Your task to perform on an android device: toggle notification dots Image 0: 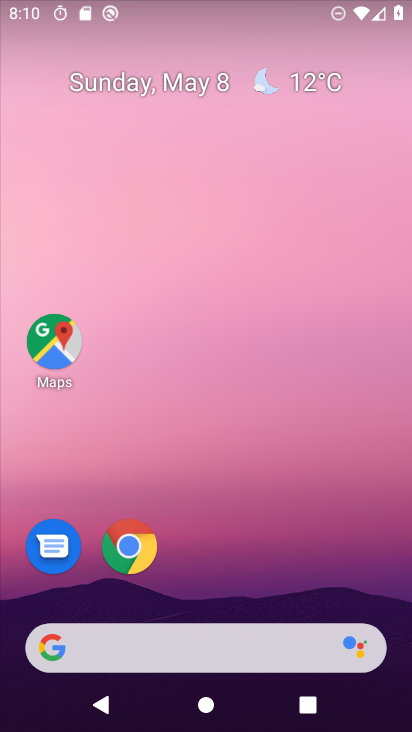
Step 0: drag from (222, 514) to (222, 44)
Your task to perform on an android device: toggle notification dots Image 1: 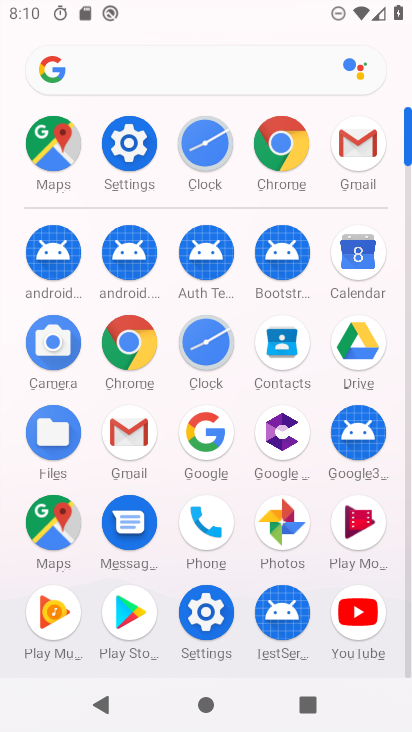
Step 1: click (140, 141)
Your task to perform on an android device: toggle notification dots Image 2: 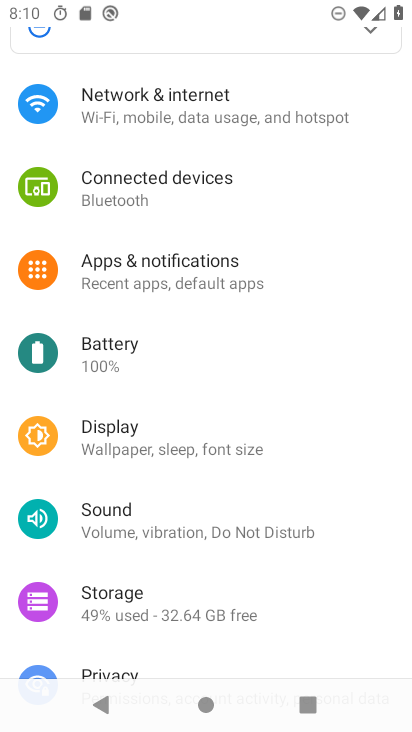
Step 2: click (160, 257)
Your task to perform on an android device: toggle notification dots Image 3: 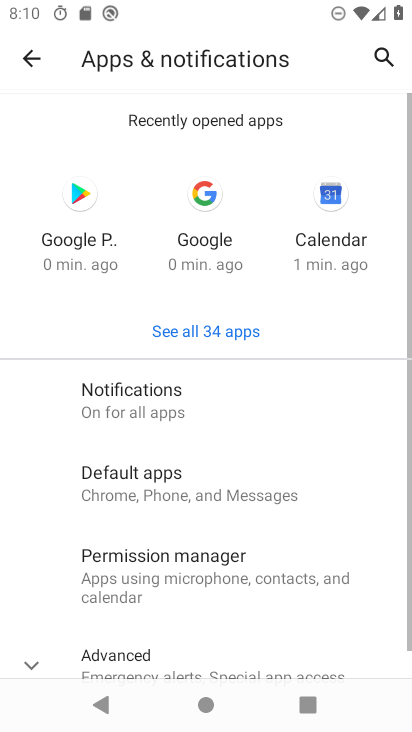
Step 3: click (148, 389)
Your task to perform on an android device: toggle notification dots Image 4: 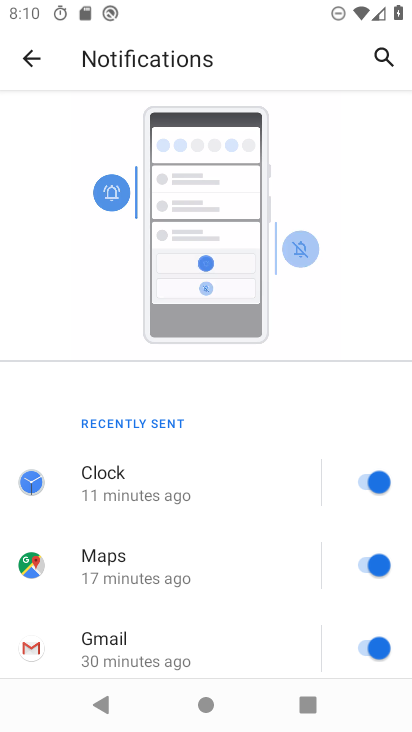
Step 4: drag from (148, 389) to (177, 139)
Your task to perform on an android device: toggle notification dots Image 5: 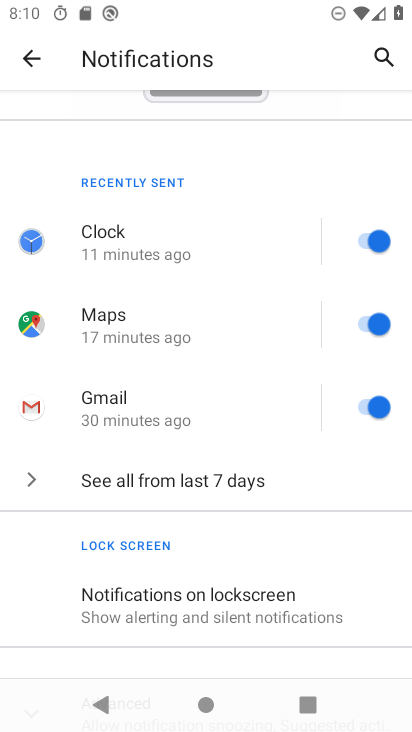
Step 5: click (152, 516)
Your task to perform on an android device: toggle notification dots Image 6: 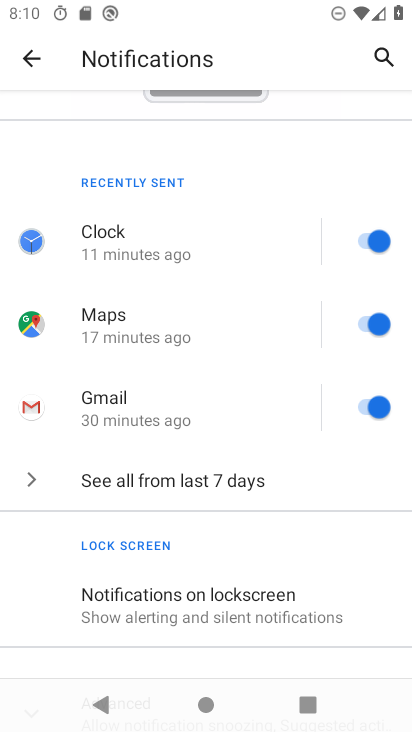
Step 6: drag from (152, 516) to (162, 235)
Your task to perform on an android device: toggle notification dots Image 7: 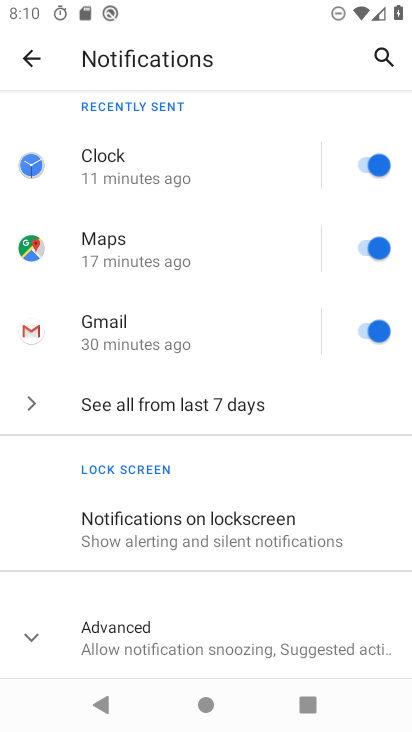
Step 7: click (32, 635)
Your task to perform on an android device: toggle notification dots Image 8: 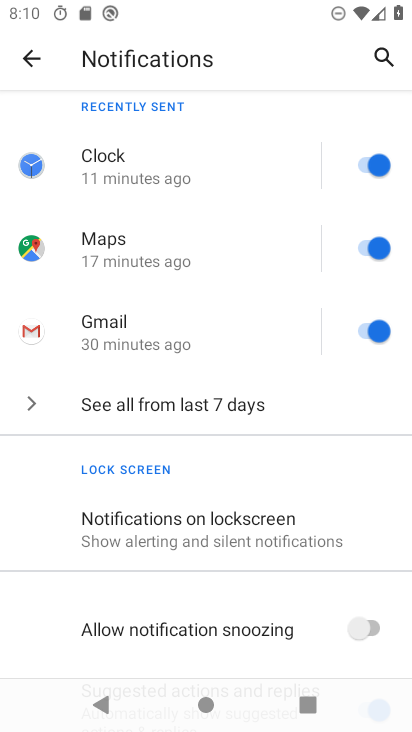
Step 8: drag from (136, 600) to (158, 367)
Your task to perform on an android device: toggle notification dots Image 9: 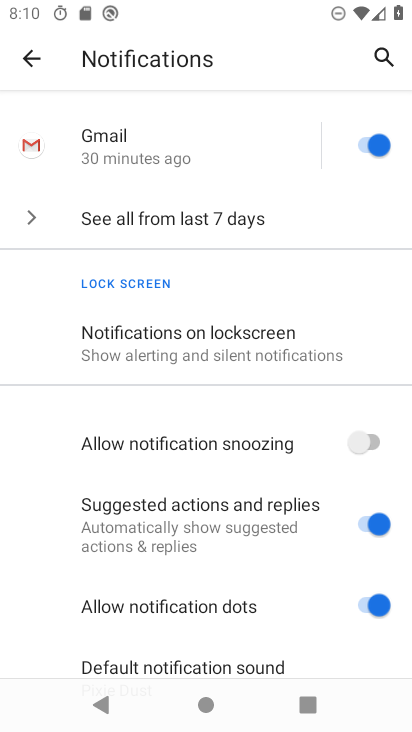
Step 9: click (366, 599)
Your task to perform on an android device: toggle notification dots Image 10: 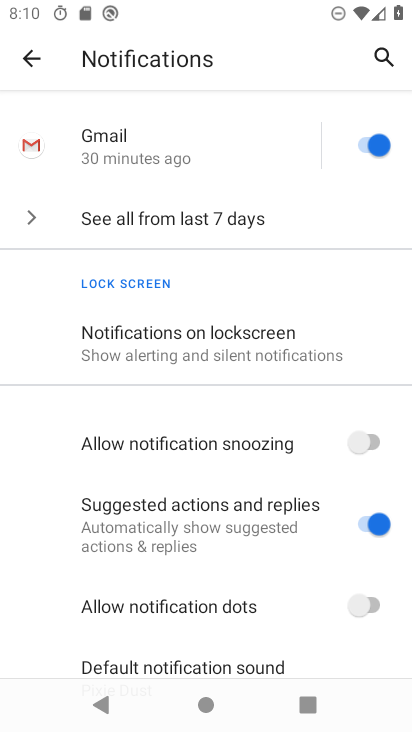
Step 10: task complete